Your task to perform on an android device: Open Google Maps Image 0: 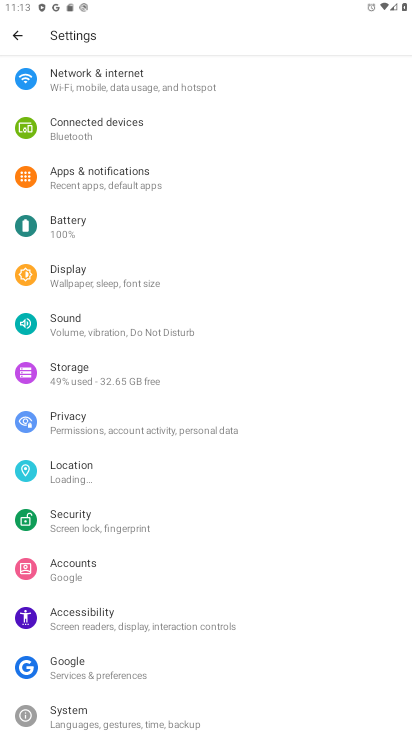
Step 0: press home button
Your task to perform on an android device: Open Google Maps Image 1: 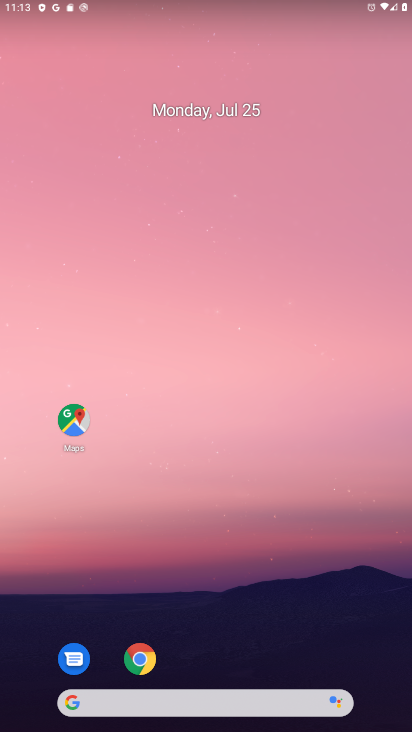
Step 1: click (73, 414)
Your task to perform on an android device: Open Google Maps Image 2: 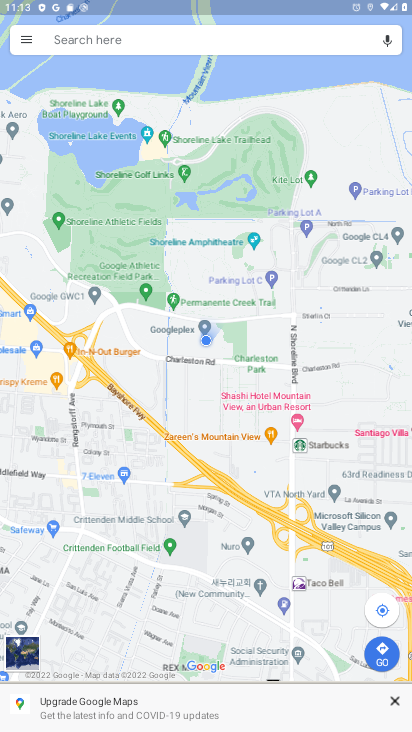
Step 2: task complete